Your task to perform on an android device: Open sound settings Image 0: 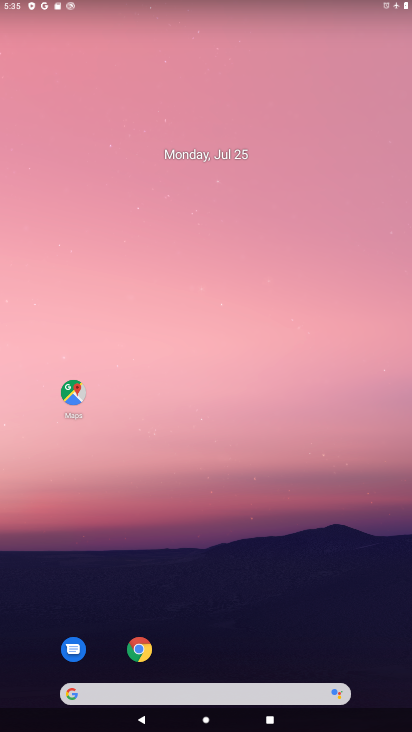
Step 0: drag from (228, 650) to (289, 10)
Your task to perform on an android device: Open sound settings Image 1: 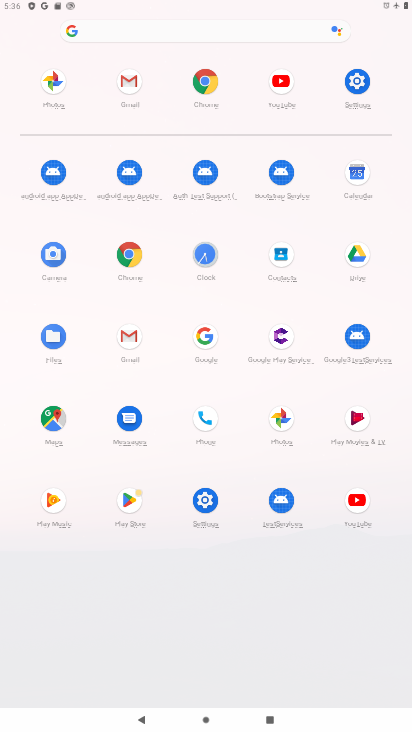
Step 1: click (363, 80)
Your task to perform on an android device: Open sound settings Image 2: 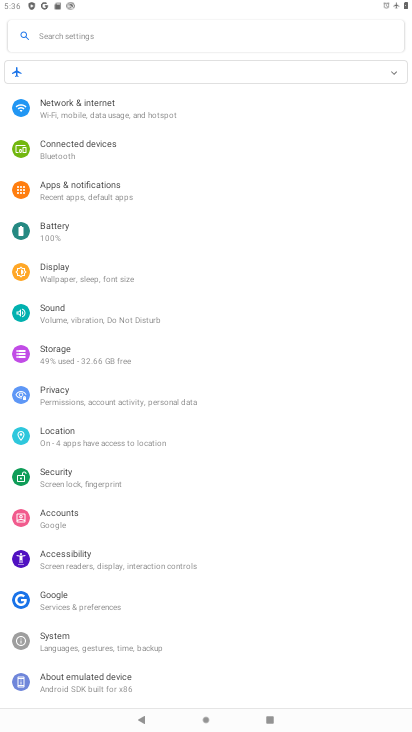
Step 2: click (63, 313)
Your task to perform on an android device: Open sound settings Image 3: 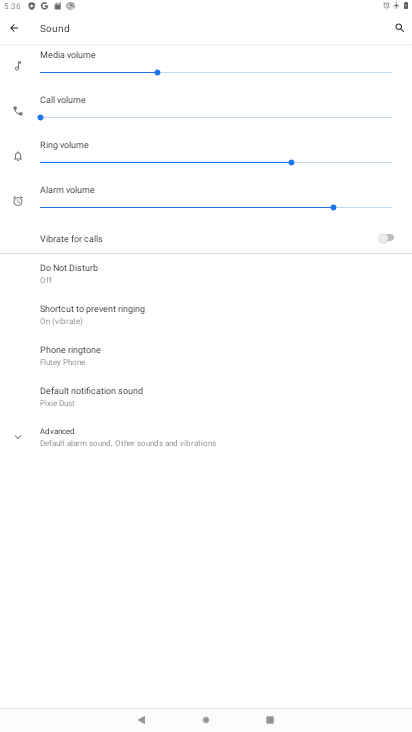
Step 3: task complete